Your task to perform on an android device: Search for sushi restaurants on Maps Image 0: 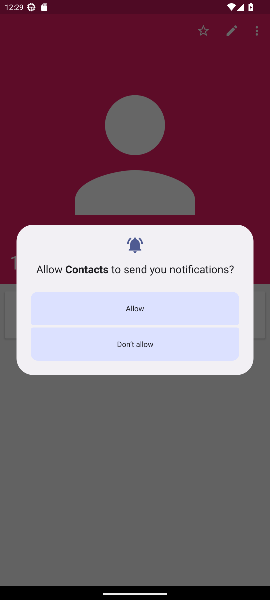
Step 0: press home button
Your task to perform on an android device: Search for sushi restaurants on Maps Image 1: 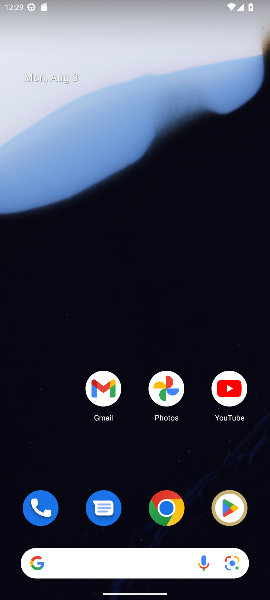
Step 1: drag from (185, 467) to (201, 190)
Your task to perform on an android device: Search for sushi restaurants on Maps Image 2: 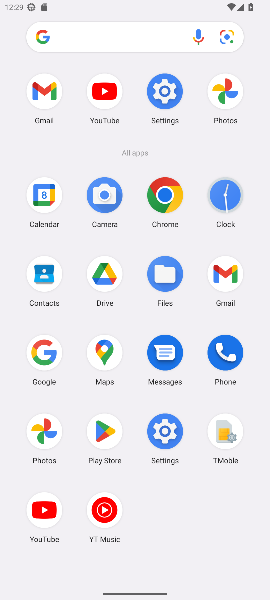
Step 2: click (98, 346)
Your task to perform on an android device: Search for sushi restaurants on Maps Image 3: 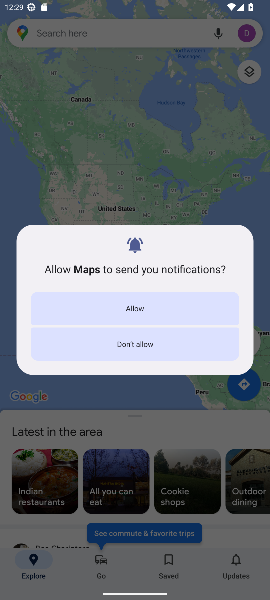
Step 3: click (134, 343)
Your task to perform on an android device: Search for sushi restaurants on Maps Image 4: 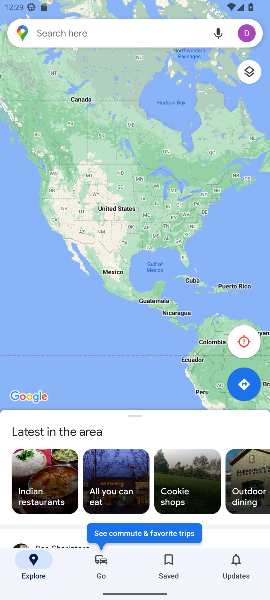
Step 4: click (132, 30)
Your task to perform on an android device: Search for sushi restaurants on Maps Image 5: 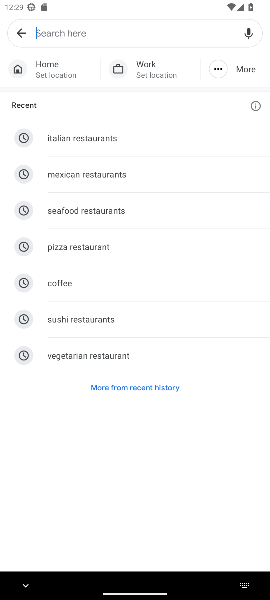
Step 5: click (102, 317)
Your task to perform on an android device: Search for sushi restaurants on Maps Image 6: 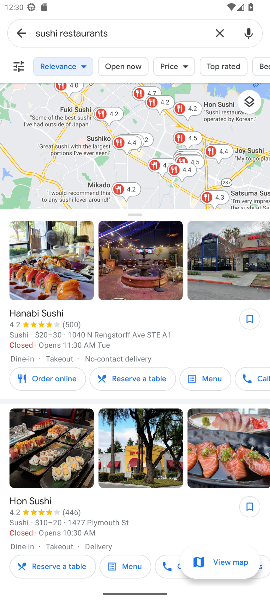
Step 6: task complete